Your task to perform on an android device: Open my contact list Image 0: 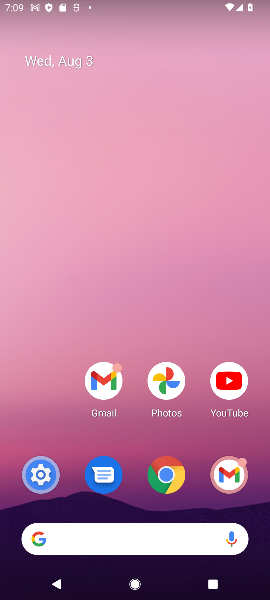
Step 0: drag from (140, 438) to (138, 158)
Your task to perform on an android device: Open my contact list Image 1: 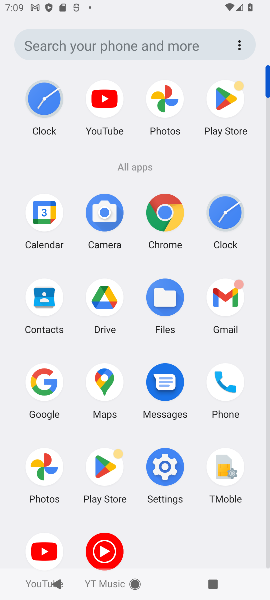
Step 1: click (36, 293)
Your task to perform on an android device: Open my contact list Image 2: 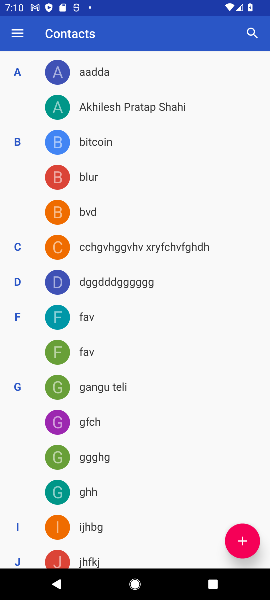
Step 2: task complete